Your task to perform on an android device: Go to settings Image 0: 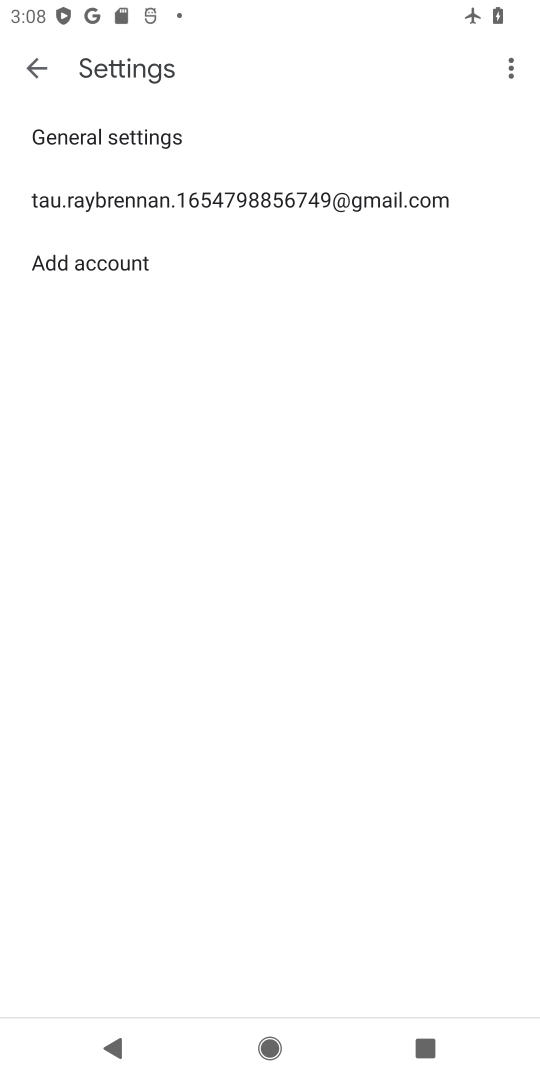
Step 0: press home button
Your task to perform on an android device: Go to settings Image 1: 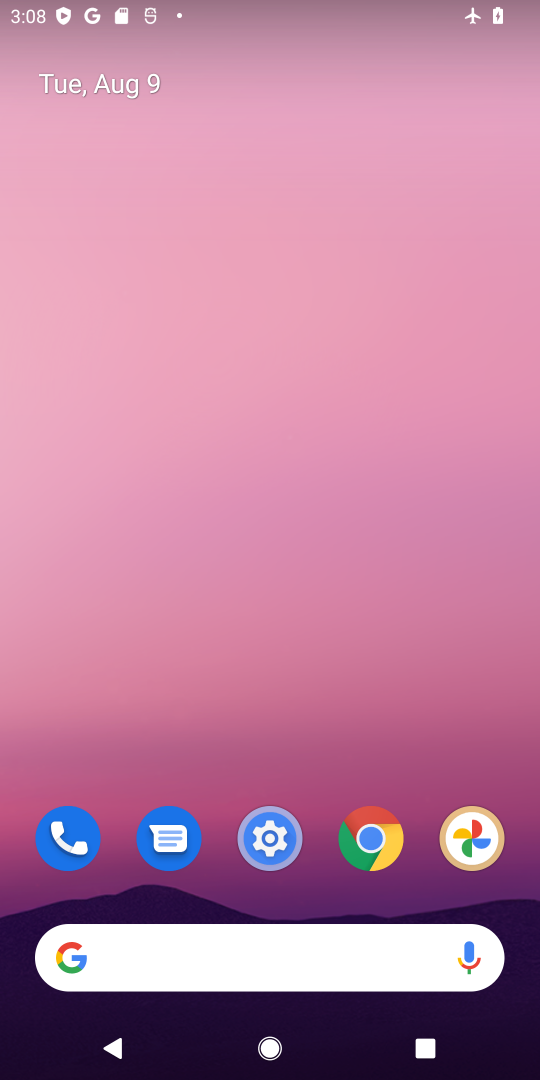
Step 1: drag from (271, 642) to (212, 23)
Your task to perform on an android device: Go to settings Image 2: 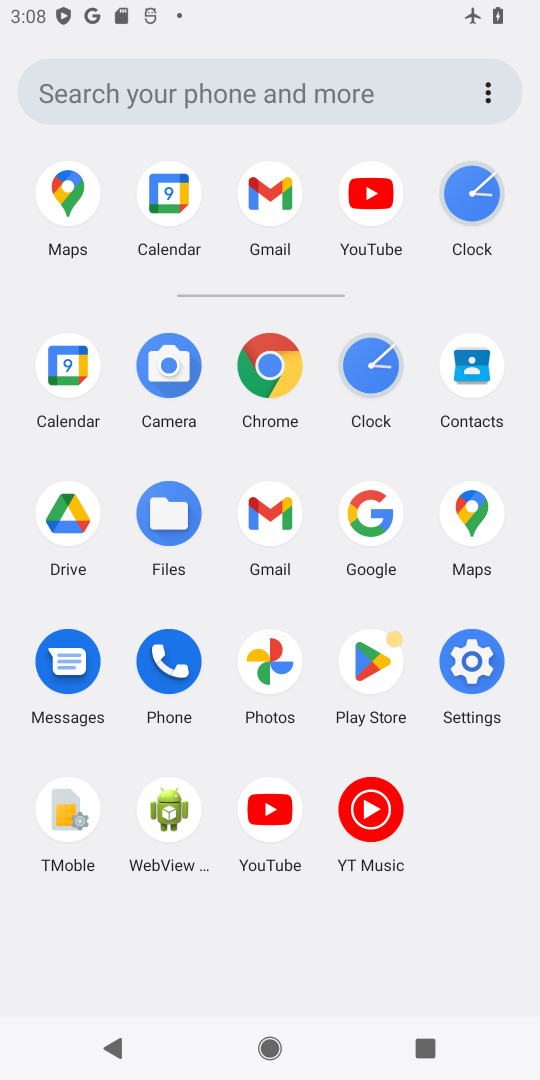
Step 2: click (461, 671)
Your task to perform on an android device: Go to settings Image 3: 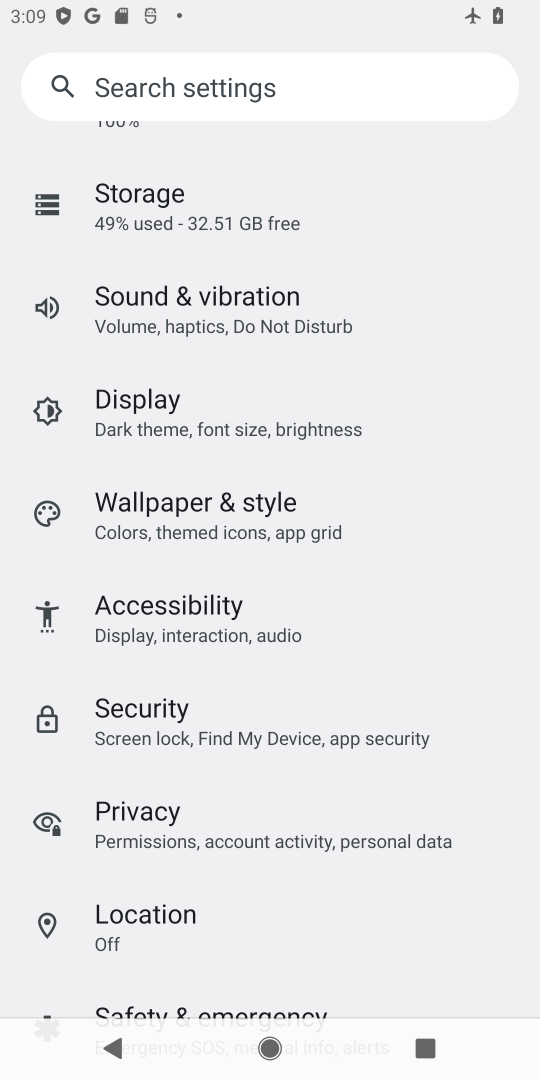
Step 3: task complete